Your task to perform on an android device: open app "Adobe Acrobat Reader" (install if not already installed), go to login, and select forgot password Image 0: 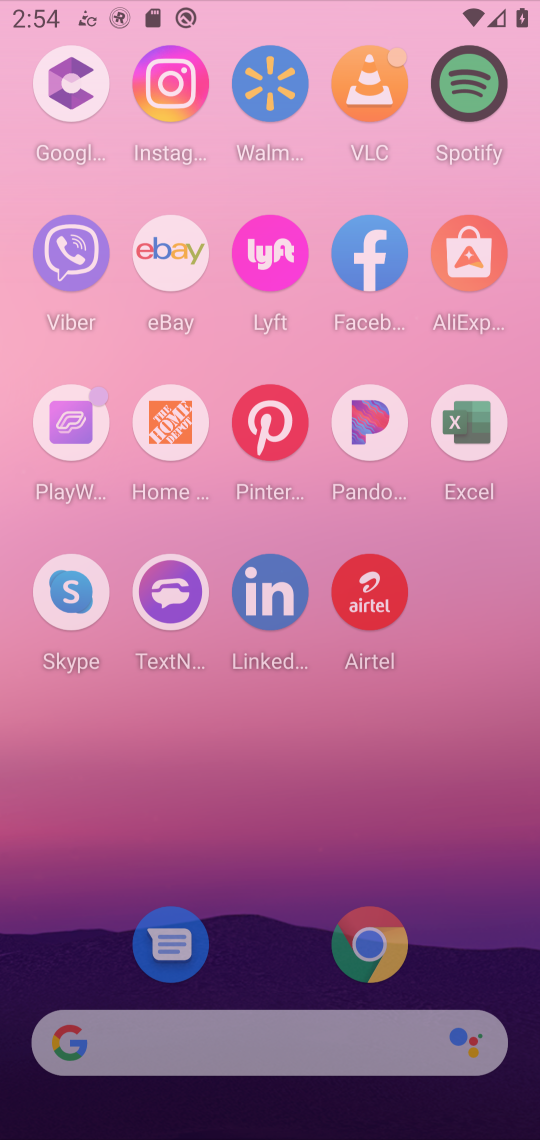
Step 0: press home button
Your task to perform on an android device: open app "Adobe Acrobat Reader" (install if not already installed), go to login, and select forgot password Image 1: 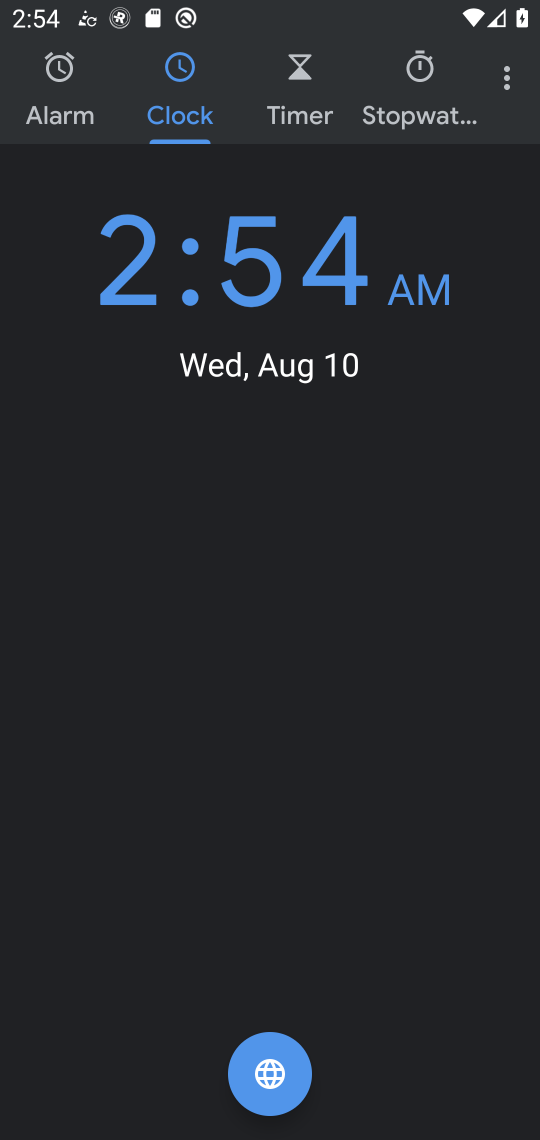
Step 1: drag from (260, 898) to (326, 235)
Your task to perform on an android device: open app "Adobe Acrobat Reader" (install if not already installed), go to login, and select forgot password Image 2: 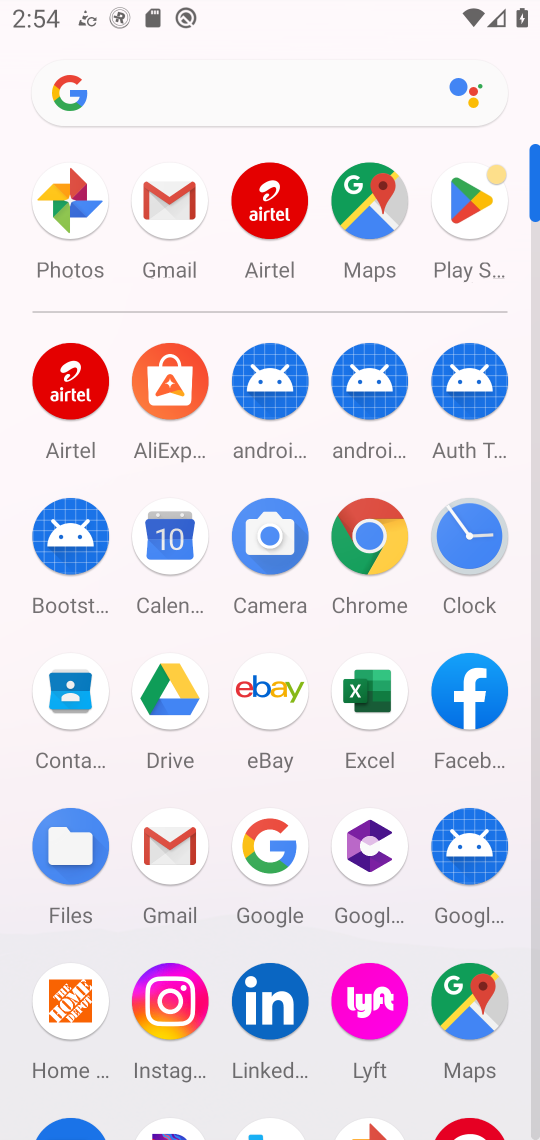
Step 2: click (187, 202)
Your task to perform on an android device: open app "Adobe Acrobat Reader" (install if not already installed), go to login, and select forgot password Image 3: 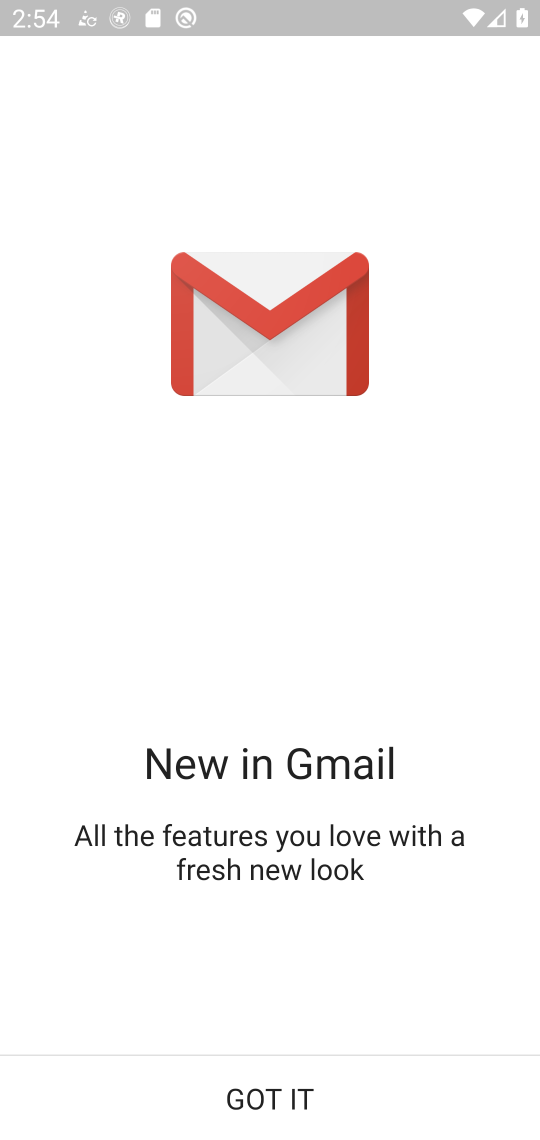
Step 3: press home button
Your task to perform on an android device: open app "Adobe Acrobat Reader" (install if not already installed), go to login, and select forgot password Image 4: 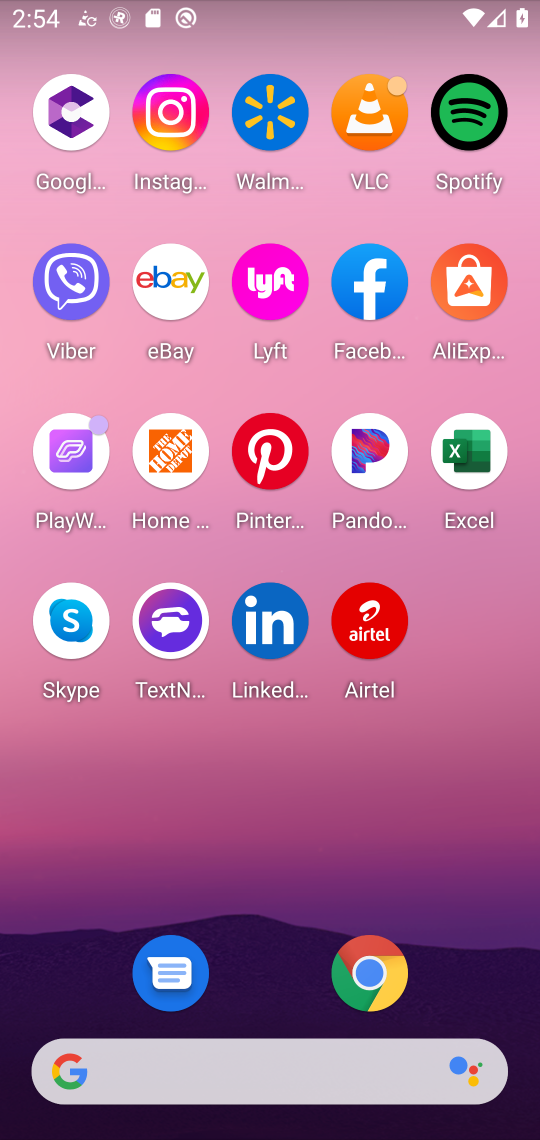
Step 4: drag from (256, 1041) to (262, 427)
Your task to perform on an android device: open app "Adobe Acrobat Reader" (install if not already installed), go to login, and select forgot password Image 5: 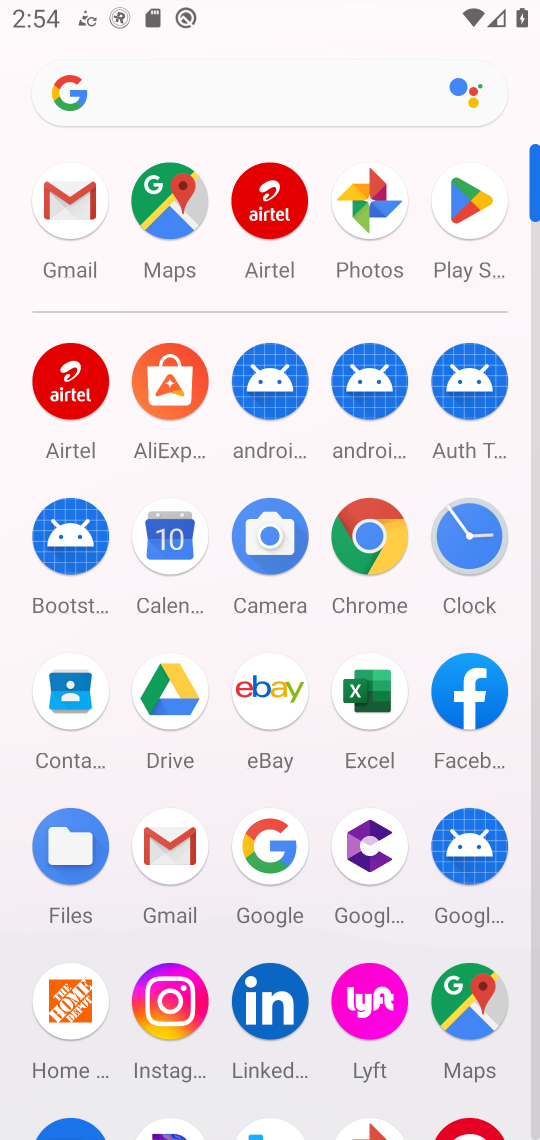
Step 5: click (484, 181)
Your task to perform on an android device: open app "Adobe Acrobat Reader" (install if not already installed), go to login, and select forgot password Image 6: 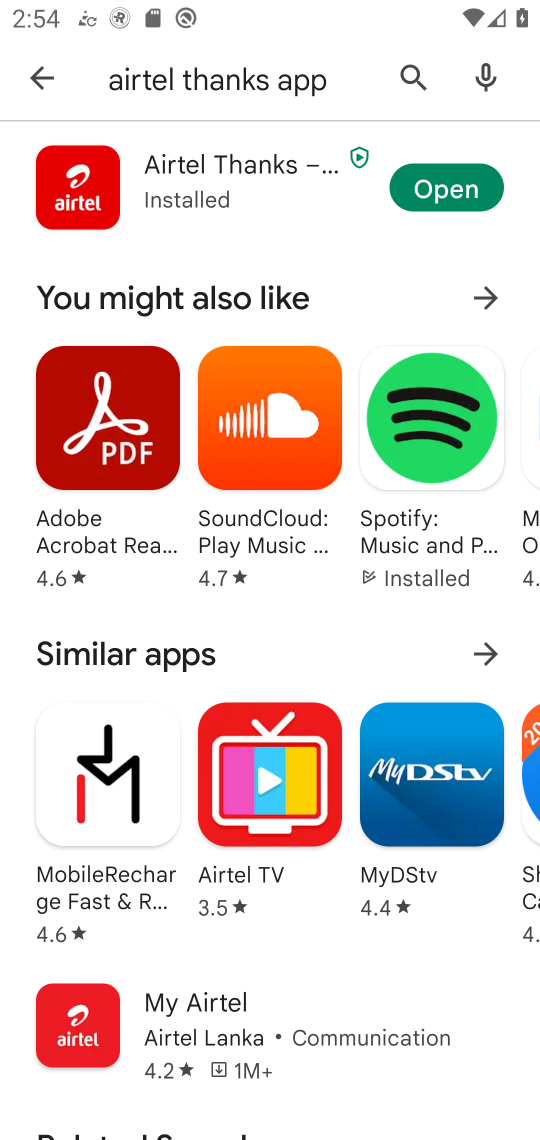
Step 6: click (41, 72)
Your task to perform on an android device: open app "Adobe Acrobat Reader" (install if not already installed), go to login, and select forgot password Image 7: 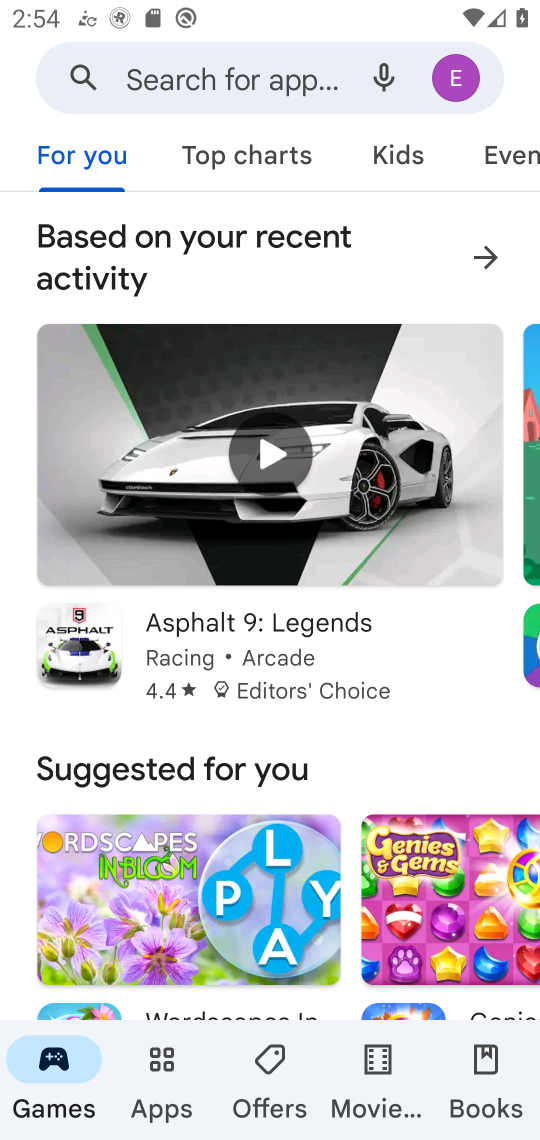
Step 7: click (151, 66)
Your task to perform on an android device: open app "Adobe Acrobat Reader" (install if not already installed), go to login, and select forgot password Image 8: 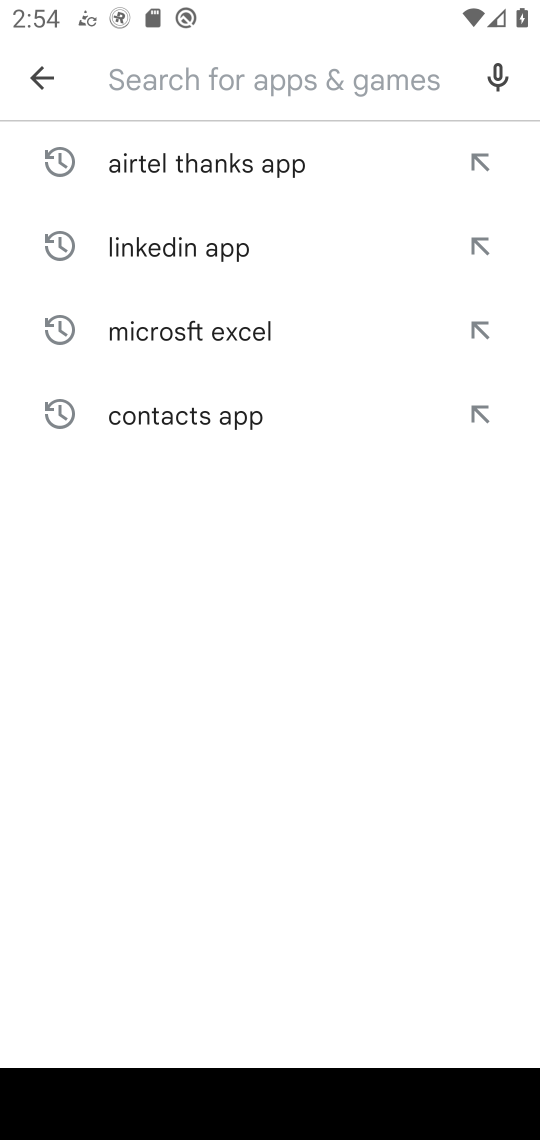
Step 8: type ""Adobe Acrobat Reader "
Your task to perform on an android device: open app "Adobe Acrobat Reader" (install if not already installed), go to login, and select forgot password Image 9: 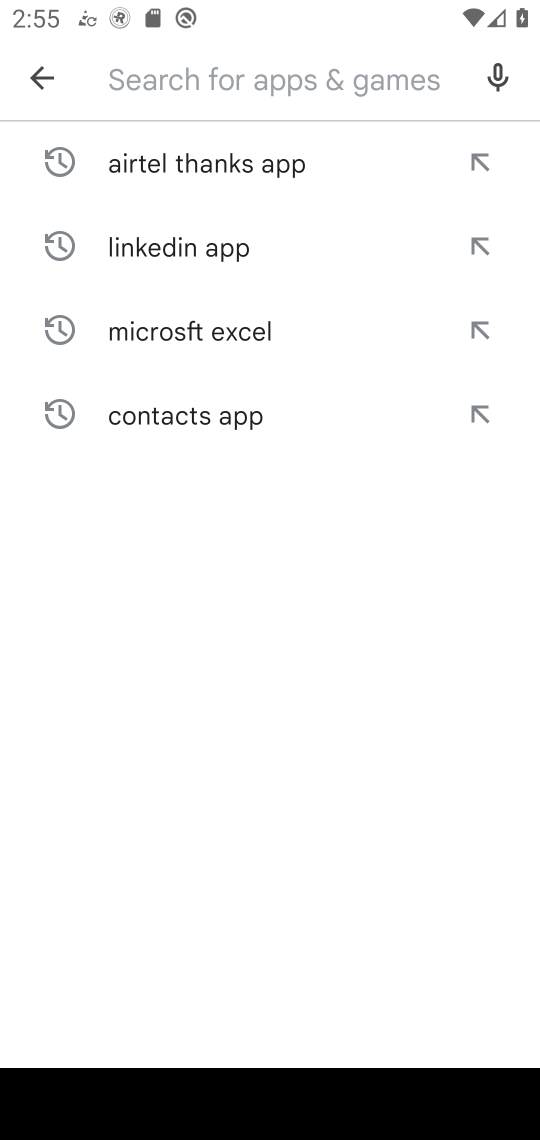
Step 9: click (229, 82)
Your task to perform on an android device: open app "Adobe Acrobat Reader" (install if not already installed), go to login, and select forgot password Image 10: 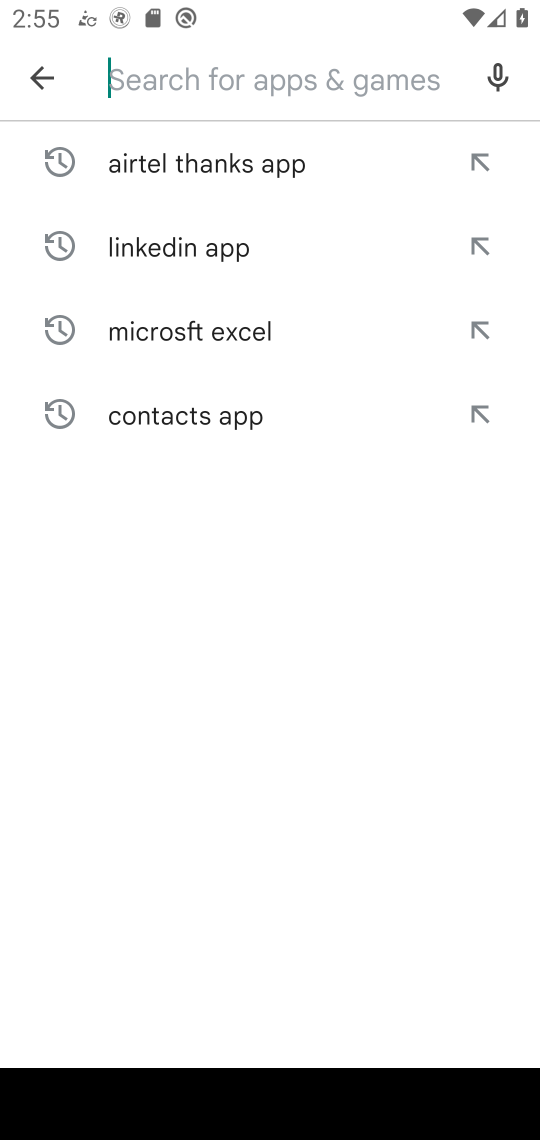
Step 10: type "Adobe Acrobat Reader "
Your task to perform on an android device: open app "Adobe Acrobat Reader" (install if not already installed), go to login, and select forgot password Image 11: 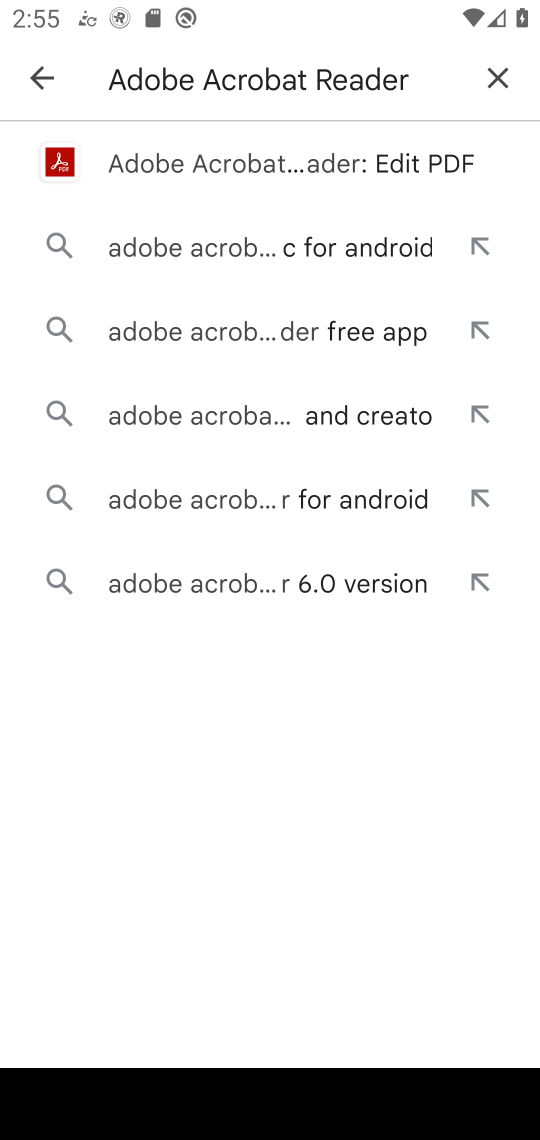
Step 11: click (202, 167)
Your task to perform on an android device: open app "Adobe Acrobat Reader" (install if not already installed), go to login, and select forgot password Image 12: 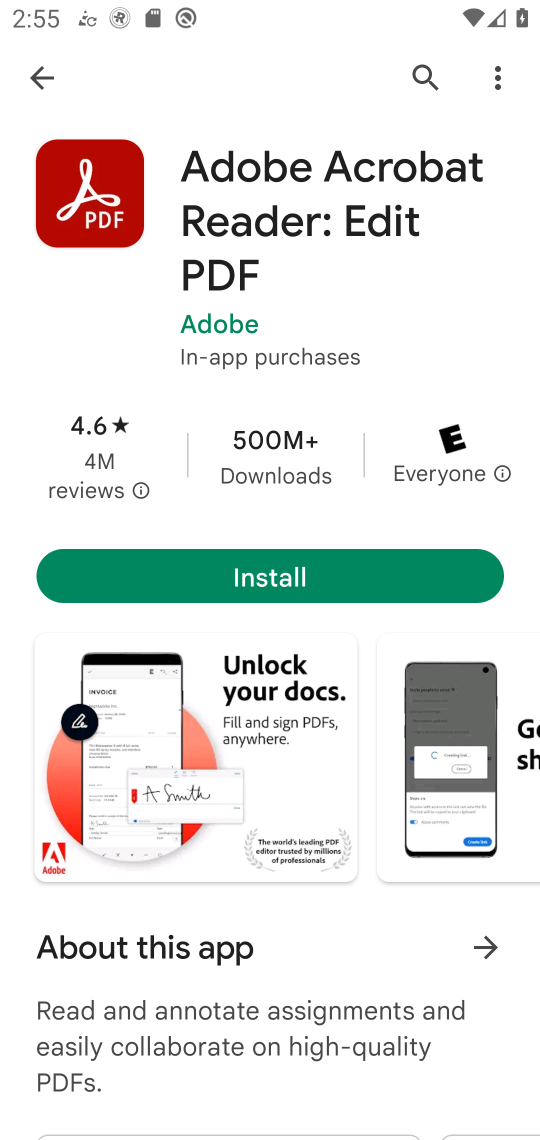
Step 12: click (266, 572)
Your task to perform on an android device: open app "Adobe Acrobat Reader" (install if not already installed), go to login, and select forgot password Image 13: 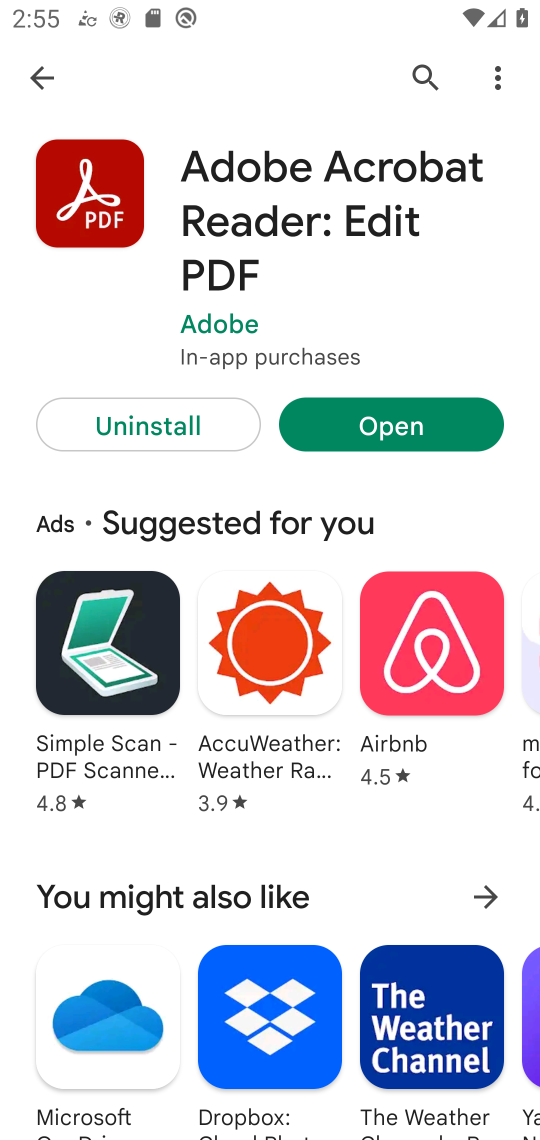
Step 13: click (436, 435)
Your task to perform on an android device: open app "Adobe Acrobat Reader" (install if not already installed), go to login, and select forgot password Image 14: 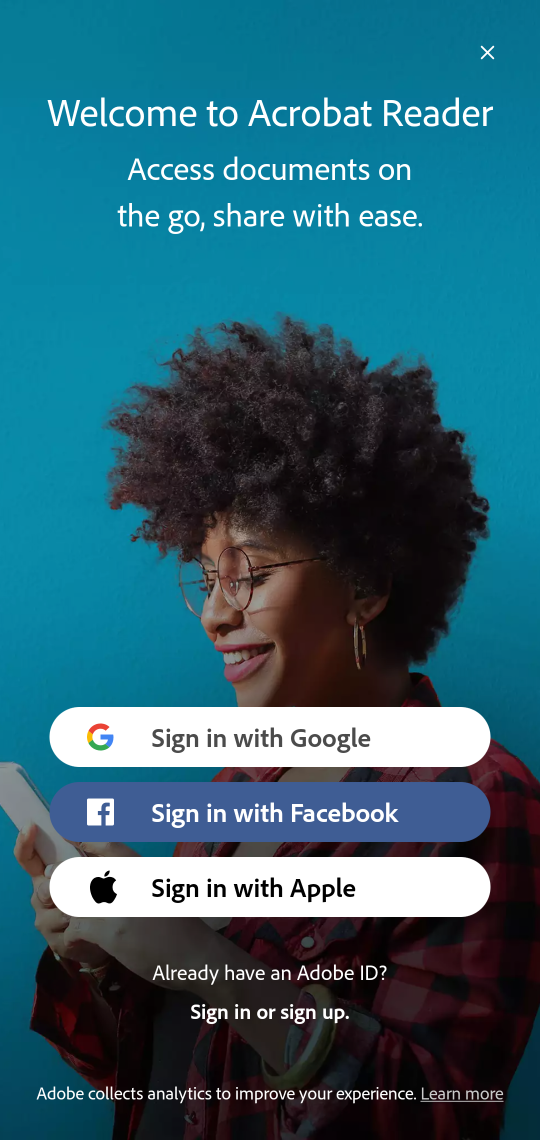
Step 14: task complete